Your task to perform on an android device: Open calendar and show me the second week of next month Image 0: 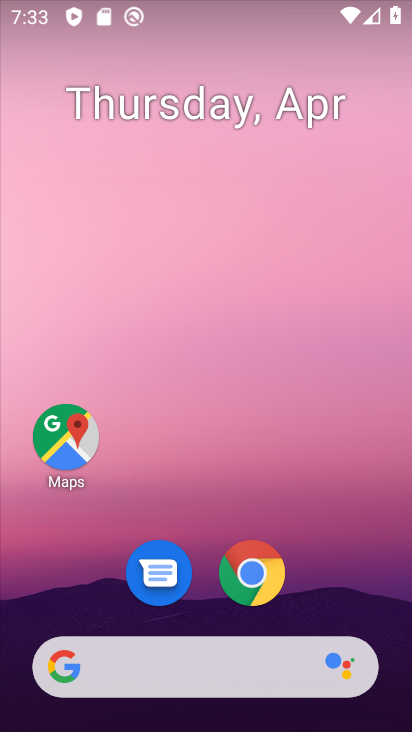
Step 0: drag from (206, 606) to (274, 4)
Your task to perform on an android device: Open calendar and show me the second week of next month Image 1: 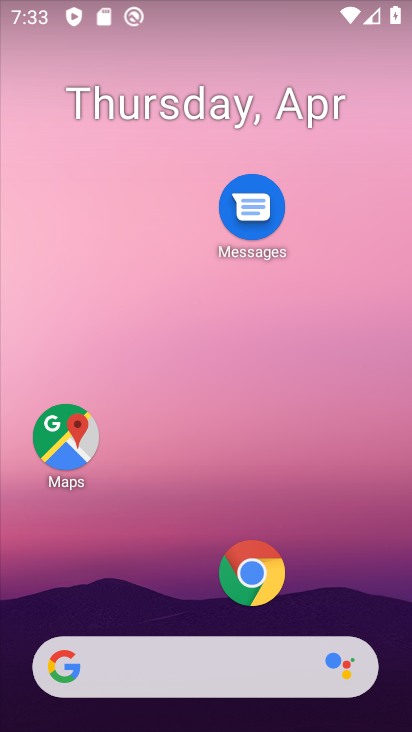
Step 1: drag from (167, 574) to (190, 3)
Your task to perform on an android device: Open calendar and show me the second week of next month Image 2: 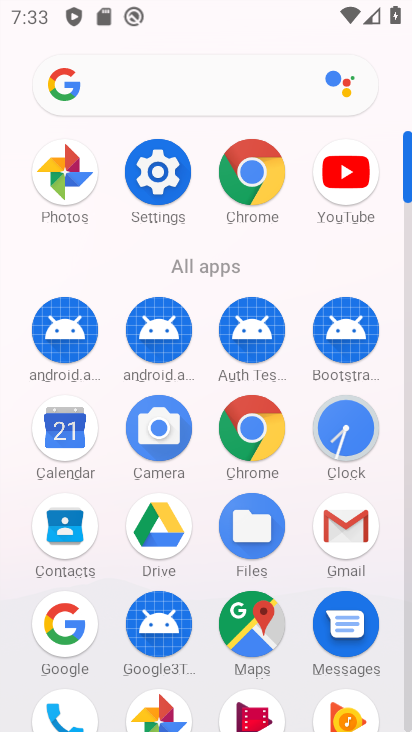
Step 2: click (63, 422)
Your task to perform on an android device: Open calendar and show me the second week of next month Image 3: 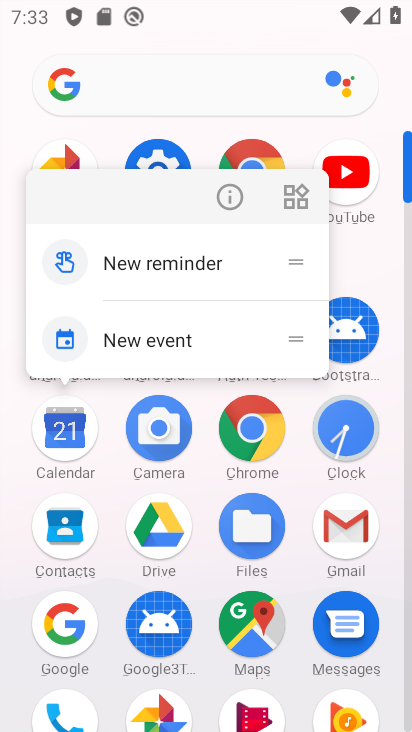
Step 3: click (13, 444)
Your task to perform on an android device: Open calendar and show me the second week of next month Image 4: 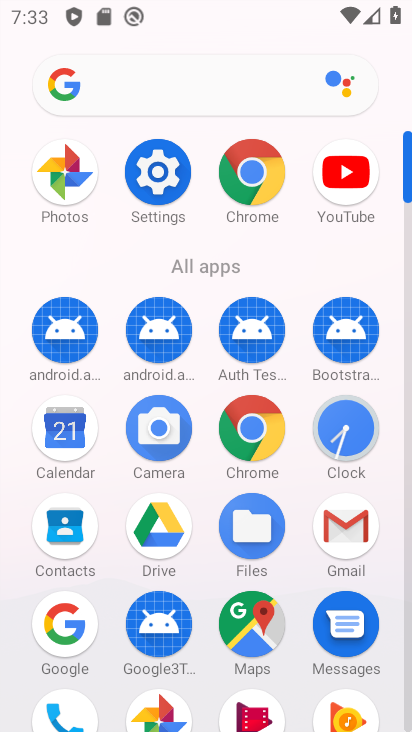
Step 4: click (66, 429)
Your task to perform on an android device: Open calendar and show me the second week of next month Image 5: 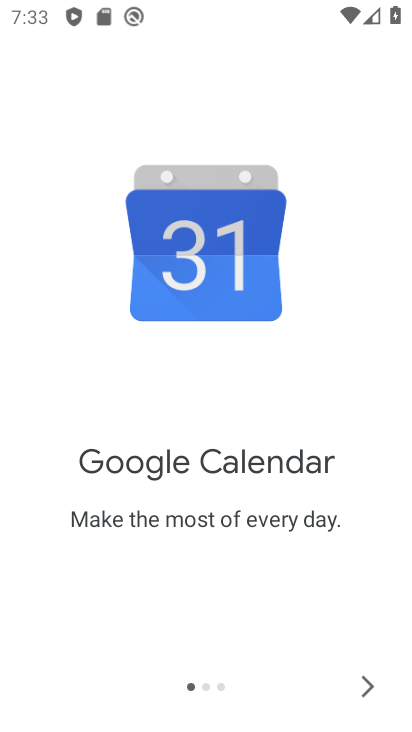
Step 5: click (362, 675)
Your task to perform on an android device: Open calendar and show me the second week of next month Image 6: 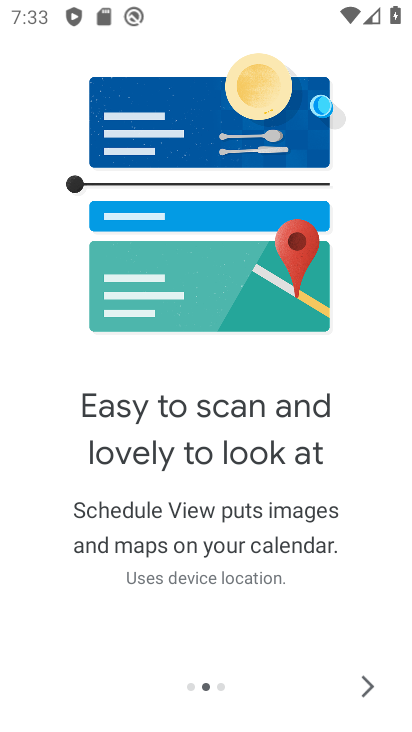
Step 6: click (362, 675)
Your task to perform on an android device: Open calendar and show me the second week of next month Image 7: 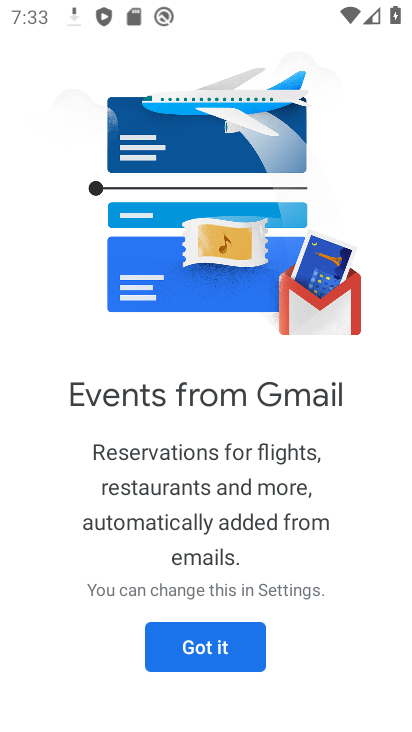
Step 7: click (211, 643)
Your task to perform on an android device: Open calendar and show me the second week of next month Image 8: 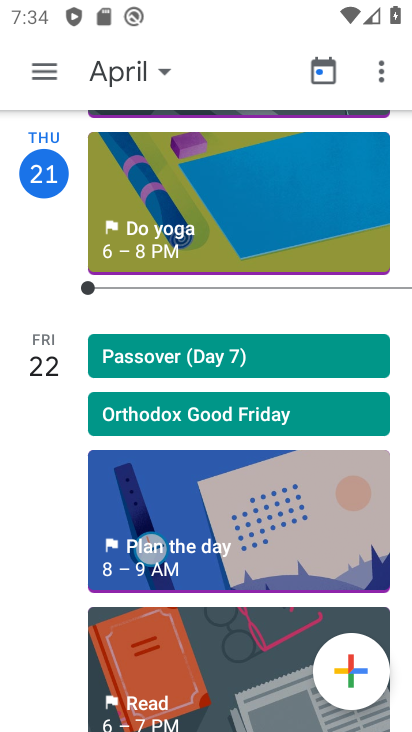
Step 8: click (39, 72)
Your task to perform on an android device: Open calendar and show me the second week of next month Image 9: 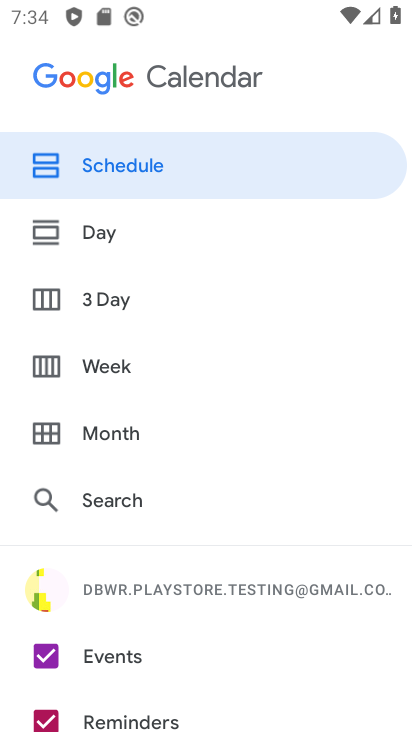
Step 9: click (72, 359)
Your task to perform on an android device: Open calendar and show me the second week of next month Image 10: 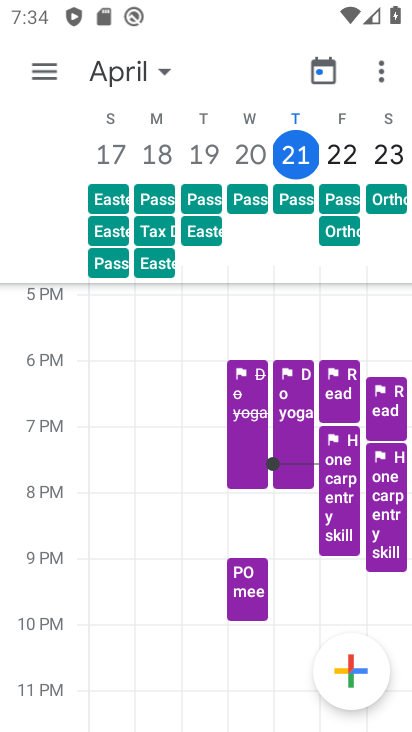
Step 10: drag from (277, 144) to (62, 143)
Your task to perform on an android device: Open calendar and show me the second week of next month Image 11: 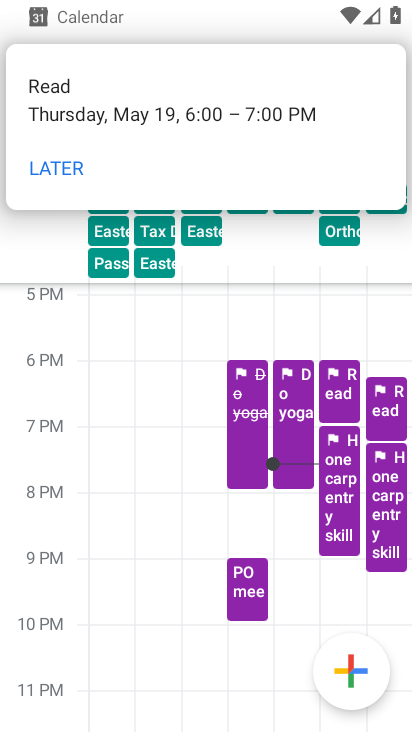
Step 11: drag from (378, 147) to (20, 155)
Your task to perform on an android device: Open calendar and show me the second week of next month Image 12: 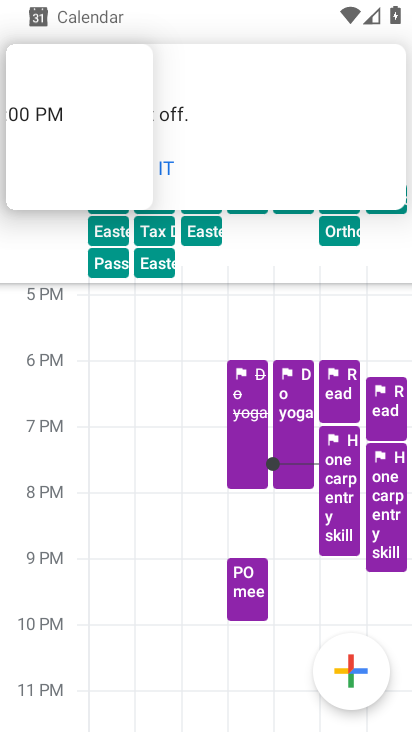
Step 12: click (44, 169)
Your task to perform on an android device: Open calendar and show me the second week of next month Image 13: 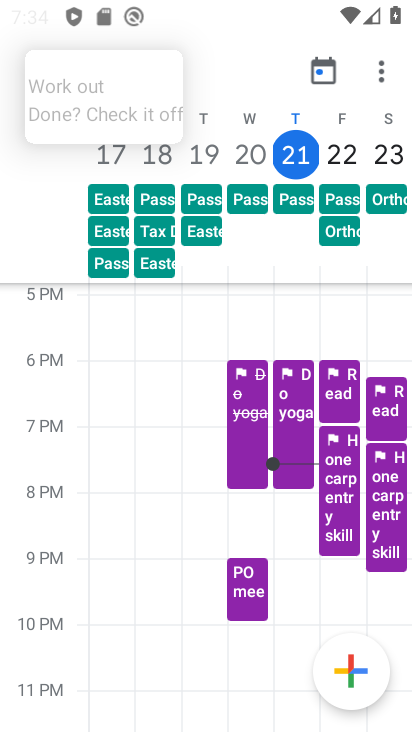
Step 13: click (71, 165)
Your task to perform on an android device: Open calendar and show me the second week of next month Image 14: 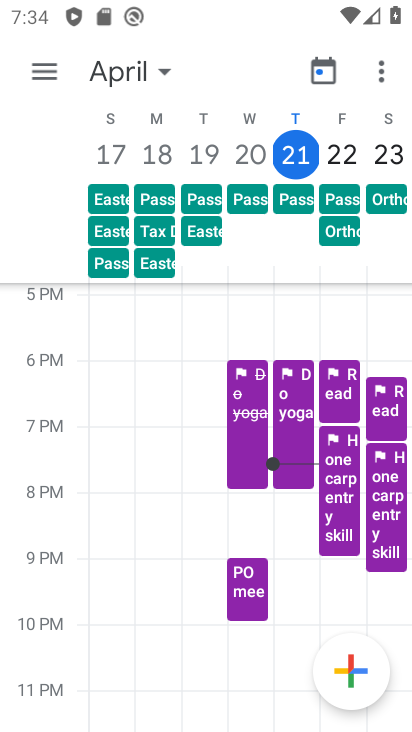
Step 14: drag from (361, 157) to (0, 158)
Your task to perform on an android device: Open calendar and show me the second week of next month Image 15: 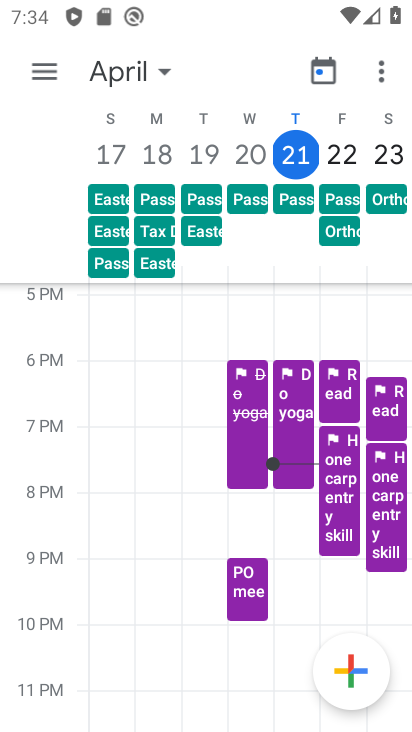
Step 15: drag from (391, 156) to (5, 149)
Your task to perform on an android device: Open calendar and show me the second week of next month Image 16: 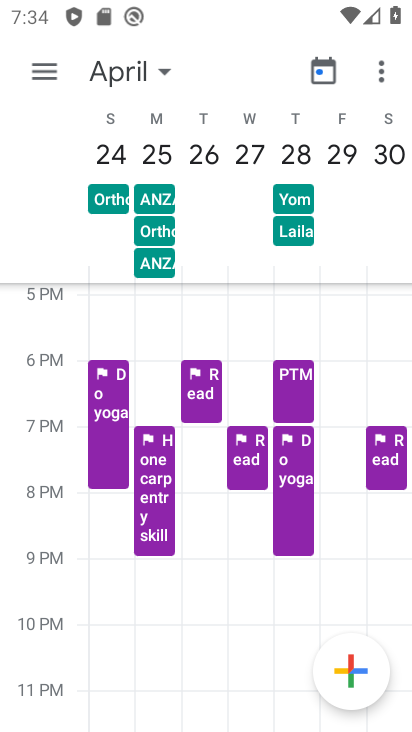
Step 16: drag from (370, 152) to (29, 166)
Your task to perform on an android device: Open calendar and show me the second week of next month Image 17: 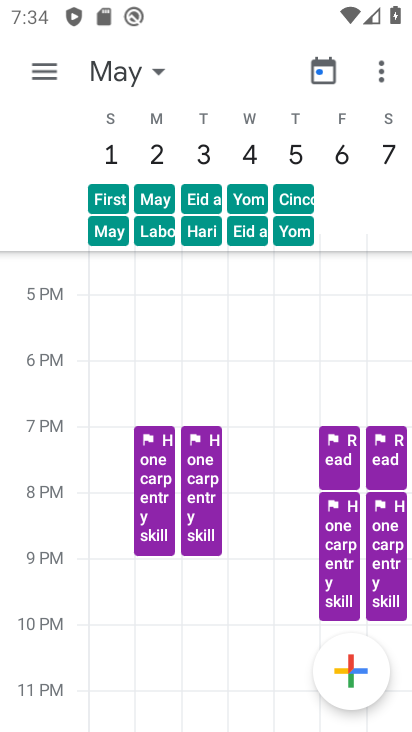
Step 17: drag from (385, 151) to (83, 148)
Your task to perform on an android device: Open calendar and show me the second week of next month Image 18: 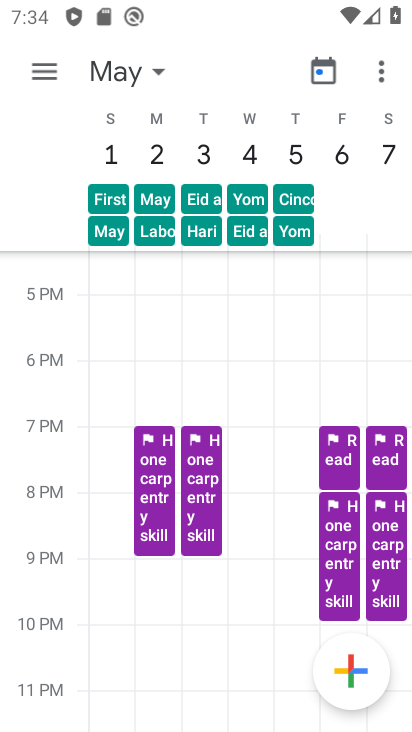
Step 18: drag from (388, 144) to (44, 147)
Your task to perform on an android device: Open calendar and show me the second week of next month Image 19: 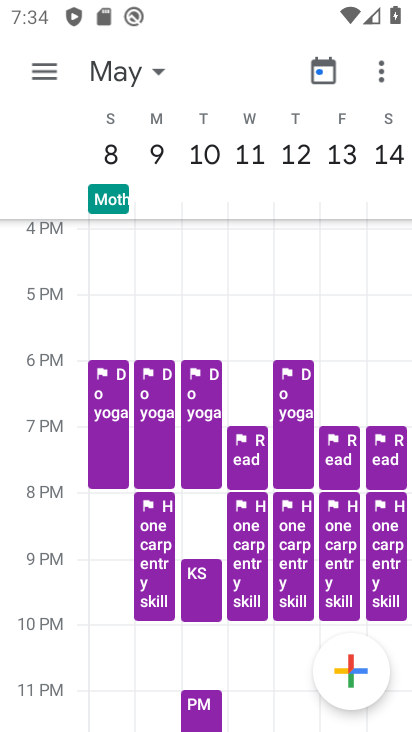
Step 19: click (105, 151)
Your task to perform on an android device: Open calendar and show me the second week of next month Image 20: 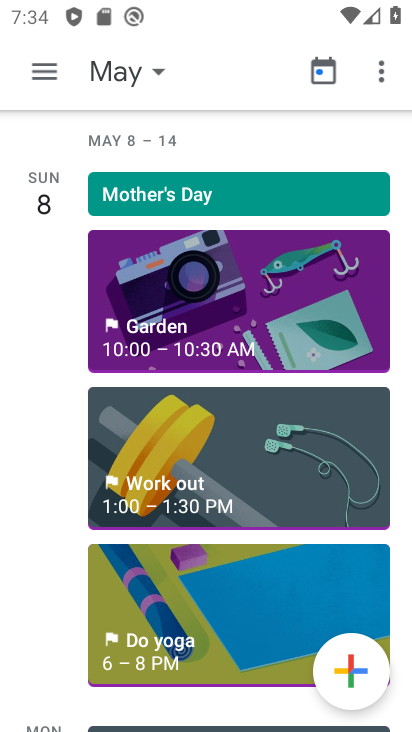
Step 20: task complete